Your task to perform on an android device: add a contact Image 0: 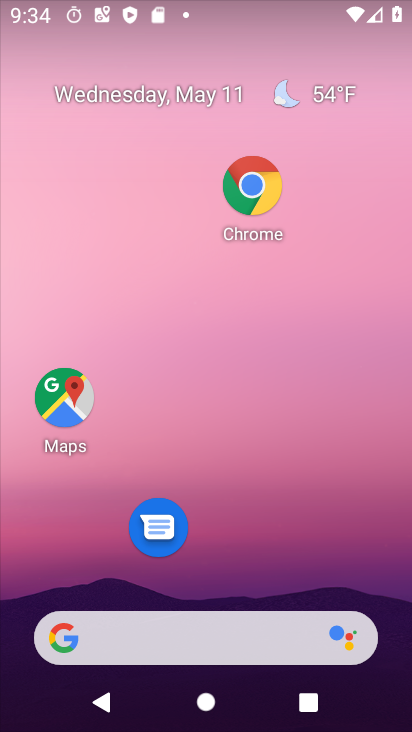
Step 0: drag from (251, 553) to (304, 104)
Your task to perform on an android device: add a contact Image 1: 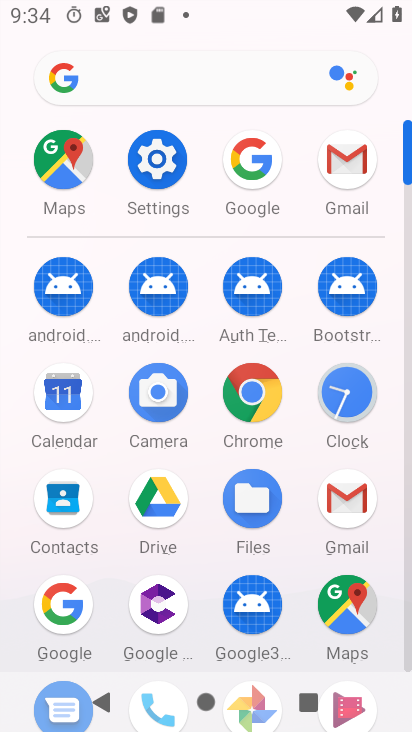
Step 1: click (68, 504)
Your task to perform on an android device: add a contact Image 2: 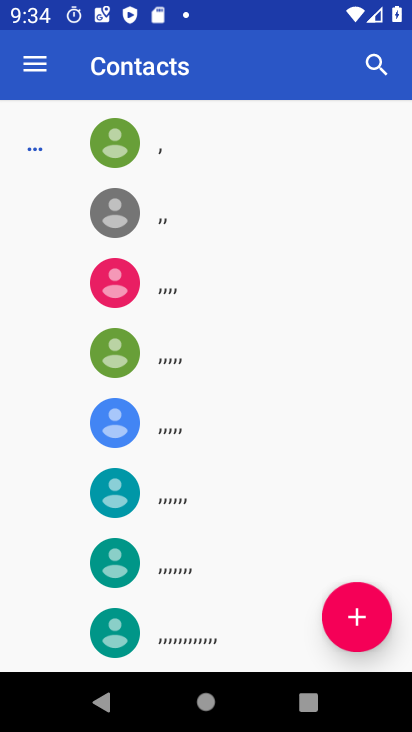
Step 2: click (353, 614)
Your task to perform on an android device: add a contact Image 3: 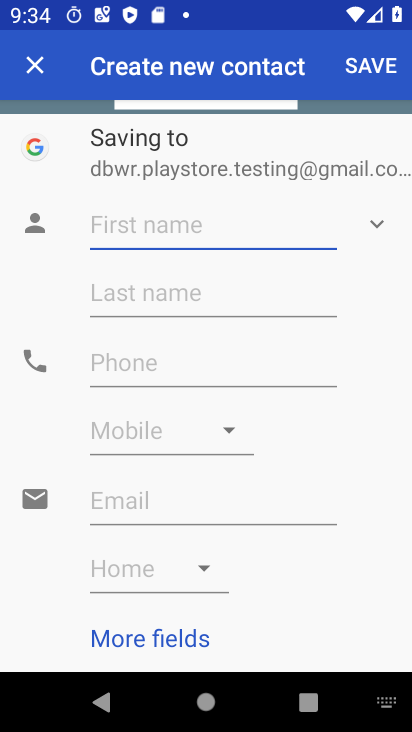
Step 3: type "jdhej"
Your task to perform on an android device: add a contact Image 4: 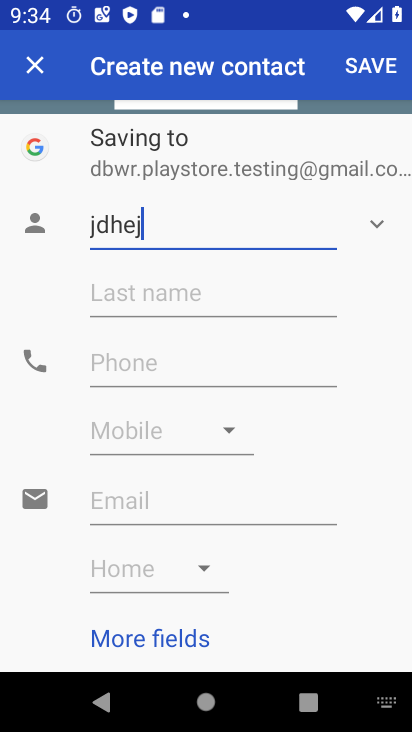
Step 4: click (367, 74)
Your task to perform on an android device: add a contact Image 5: 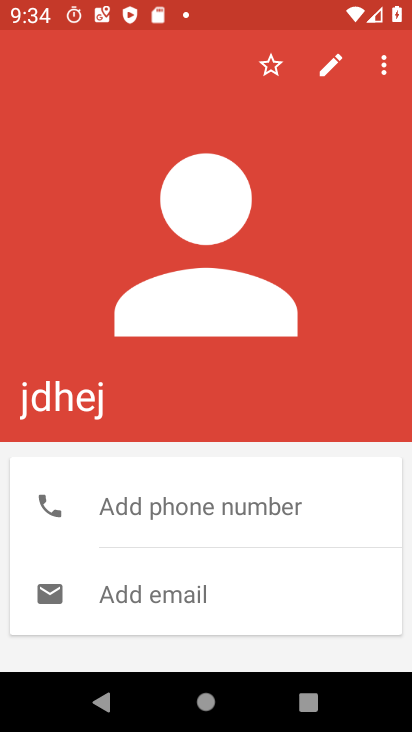
Step 5: task complete